Your task to perform on an android device: empty trash in the gmail app Image 0: 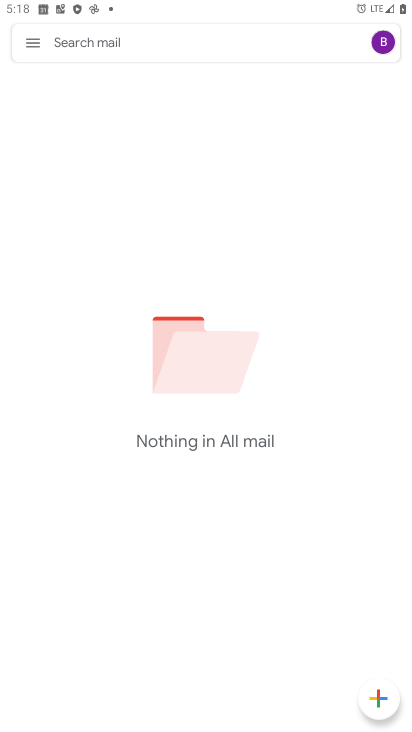
Step 0: press home button
Your task to perform on an android device: empty trash in the gmail app Image 1: 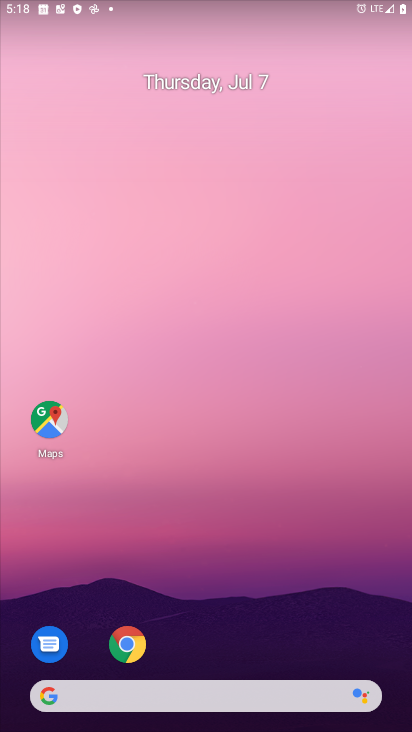
Step 1: drag from (196, 647) to (149, 241)
Your task to perform on an android device: empty trash in the gmail app Image 2: 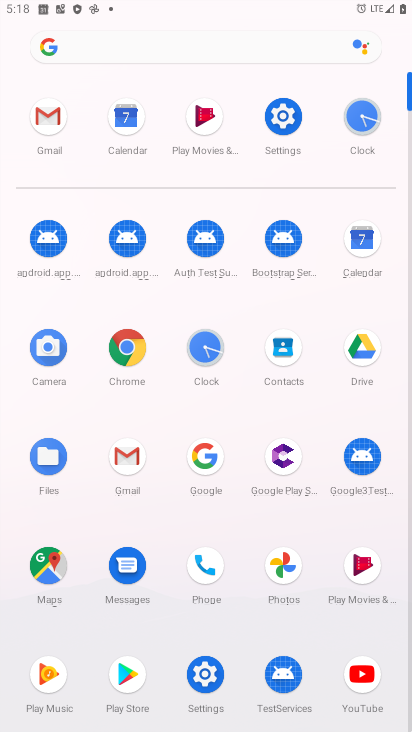
Step 2: click (48, 116)
Your task to perform on an android device: empty trash in the gmail app Image 3: 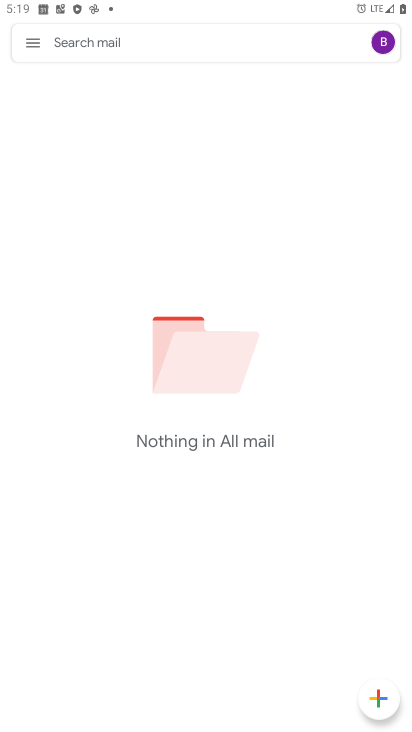
Step 3: click (35, 44)
Your task to perform on an android device: empty trash in the gmail app Image 4: 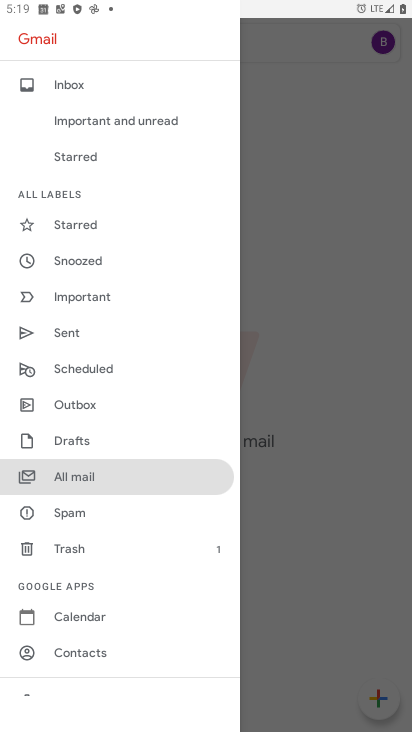
Step 4: click (67, 553)
Your task to perform on an android device: empty trash in the gmail app Image 5: 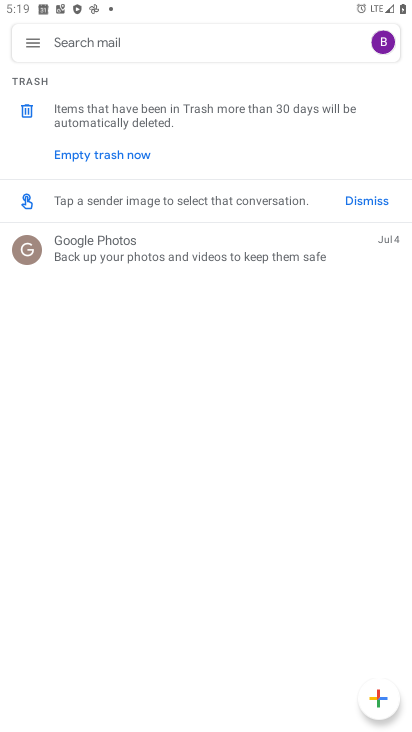
Step 5: click (130, 156)
Your task to perform on an android device: empty trash in the gmail app Image 6: 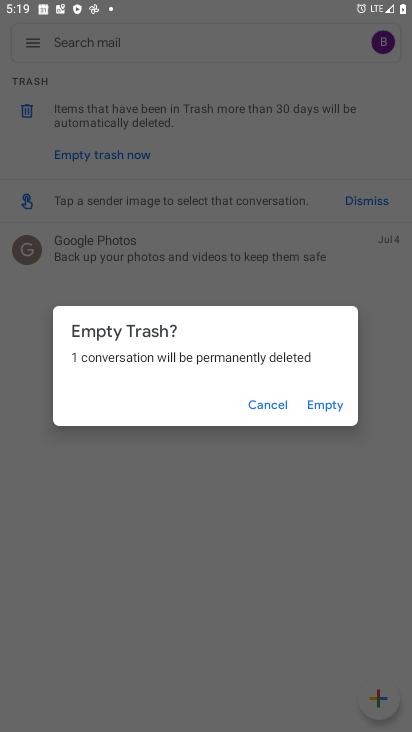
Step 6: click (323, 403)
Your task to perform on an android device: empty trash in the gmail app Image 7: 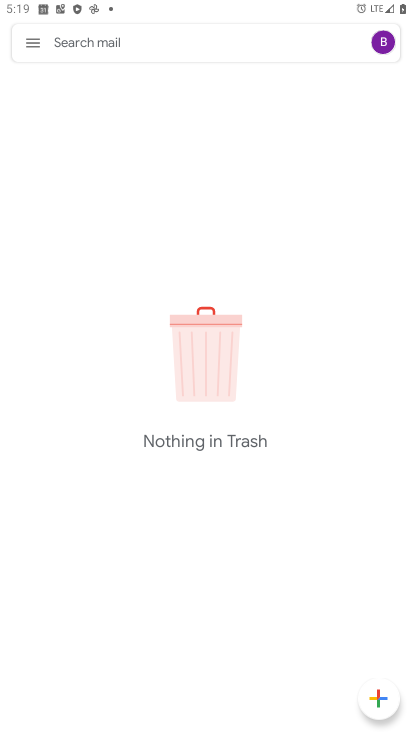
Step 7: task complete